Your task to perform on an android device: Open Wikipedia Image 0: 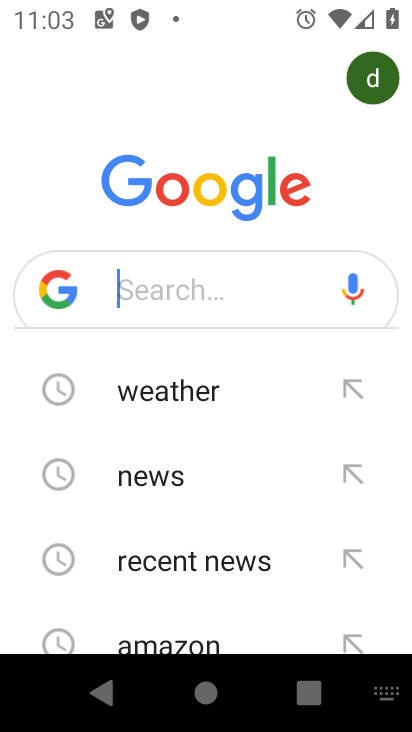
Step 0: press home button
Your task to perform on an android device: Open Wikipedia Image 1: 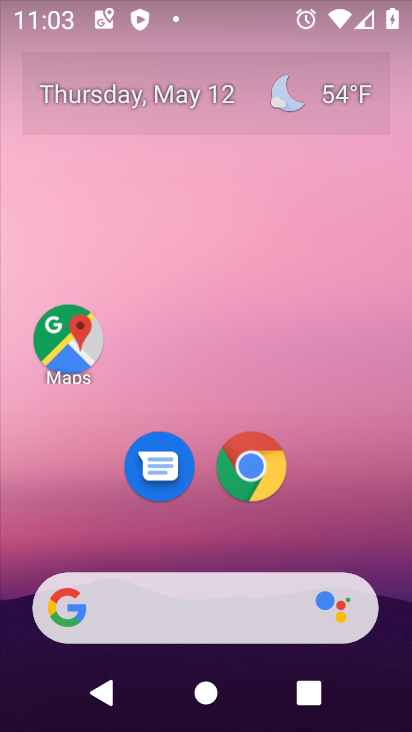
Step 1: drag from (334, 526) to (371, 167)
Your task to perform on an android device: Open Wikipedia Image 2: 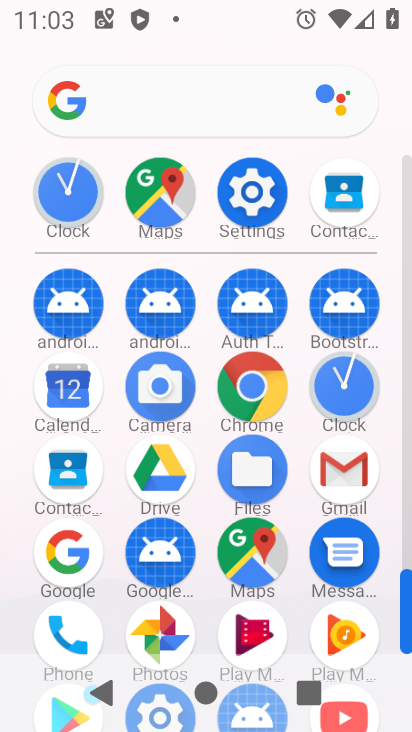
Step 2: drag from (290, 595) to (277, 284)
Your task to perform on an android device: Open Wikipedia Image 3: 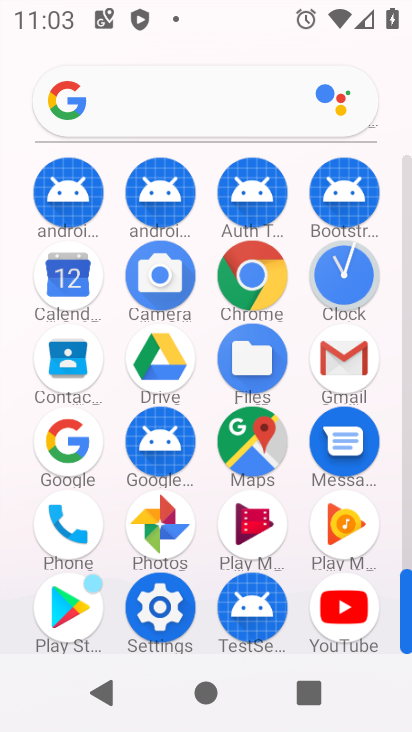
Step 3: click (263, 275)
Your task to perform on an android device: Open Wikipedia Image 4: 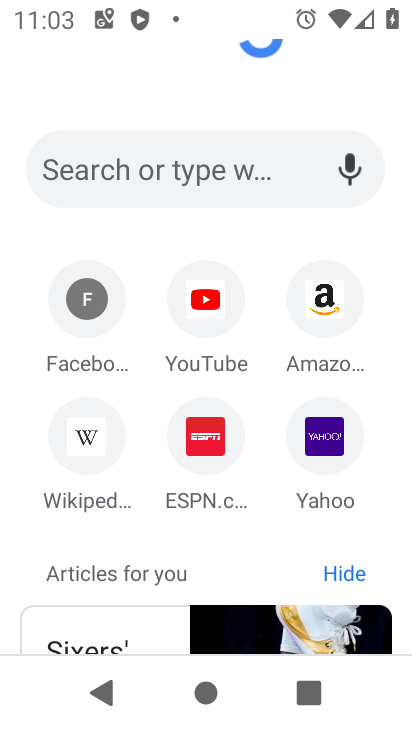
Step 4: click (115, 435)
Your task to perform on an android device: Open Wikipedia Image 5: 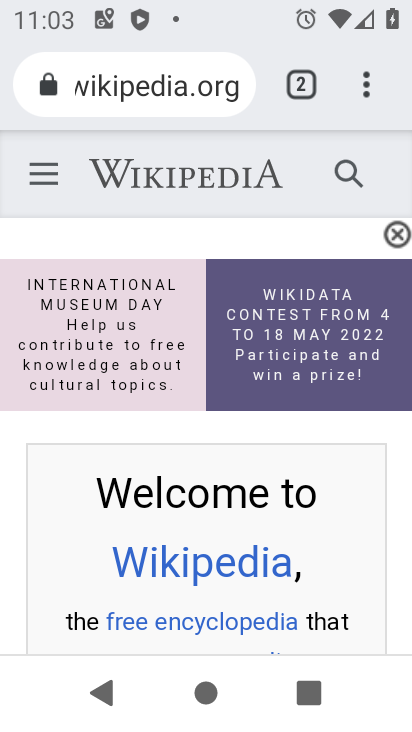
Step 5: task complete